Your task to perform on an android device: Check the weather Image 0: 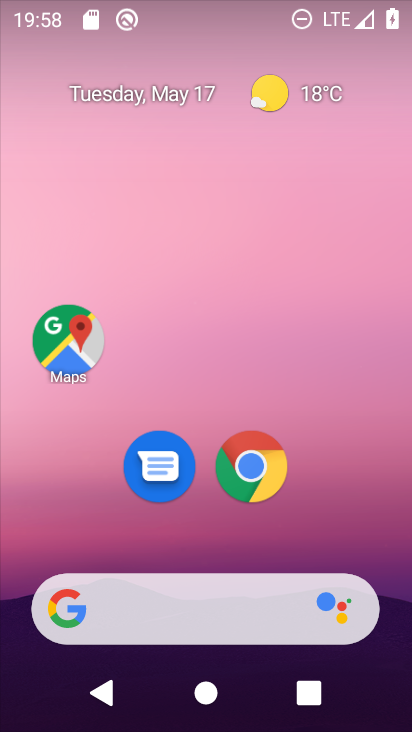
Step 0: click (305, 95)
Your task to perform on an android device: Check the weather Image 1: 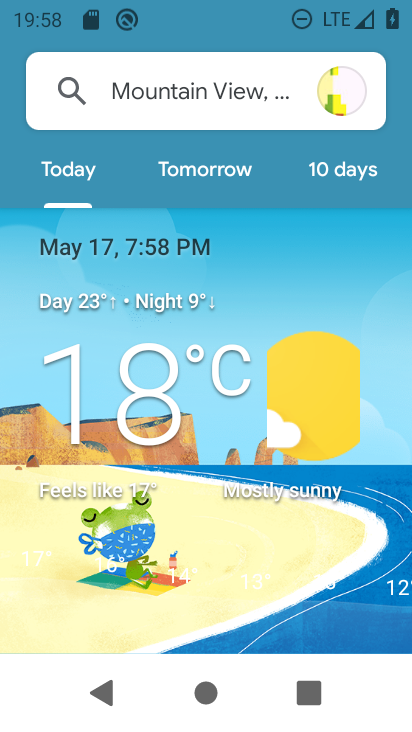
Step 1: task complete